Your task to perform on an android device: empty trash in the gmail app Image 0: 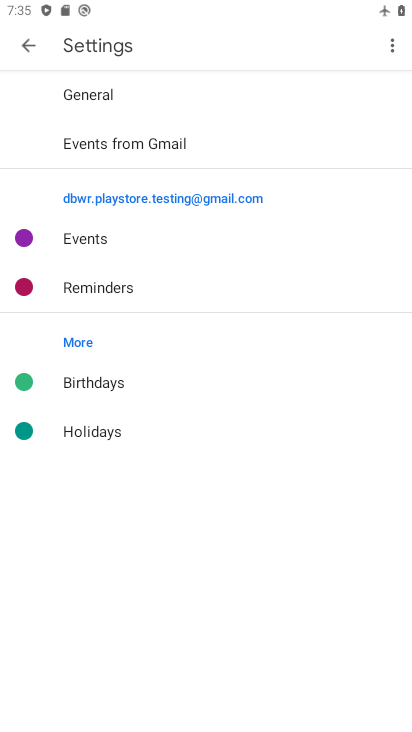
Step 0: press home button
Your task to perform on an android device: empty trash in the gmail app Image 1: 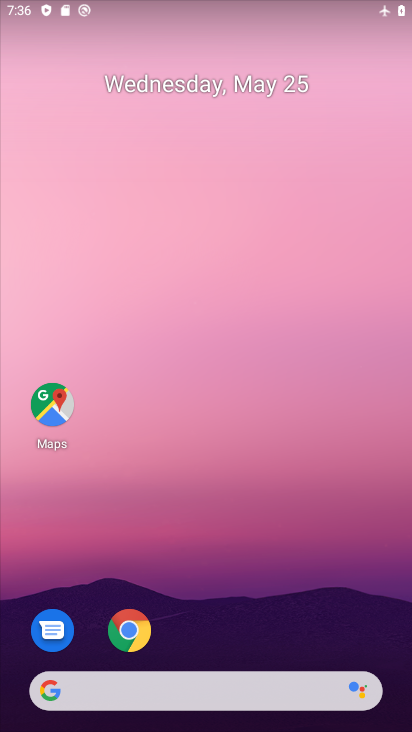
Step 1: drag from (200, 683) to (229, 314)
Your task to perform on an android device: empty trash in the gmail app Image 2: 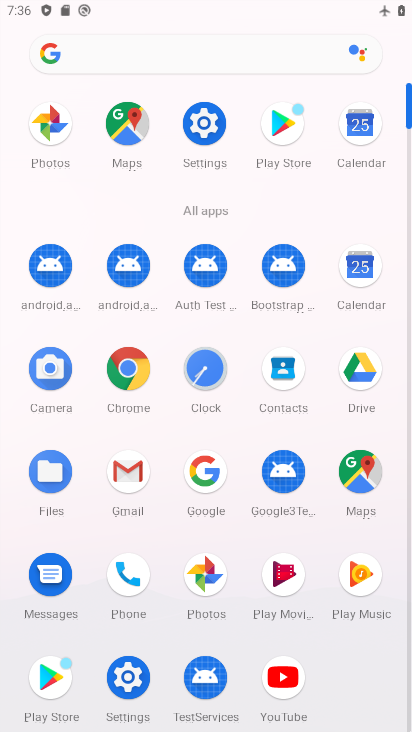
Step 2: click (205, 581)
Your task to perform on an android device: empty trash in the gmail app Image 3: 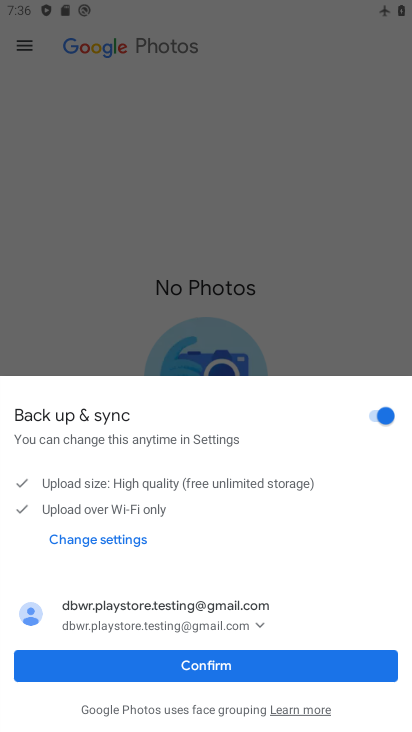
Step 3: click (176, 668)
Your task to perform on an android device: empty trash in the gmail app Image 4: 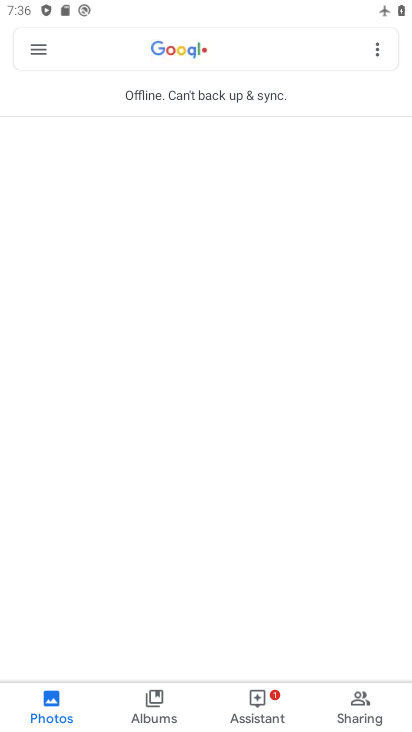
Step 4: click (35, 55)
Your task to perform on an android device: empty trash in the gmail app Image 5: 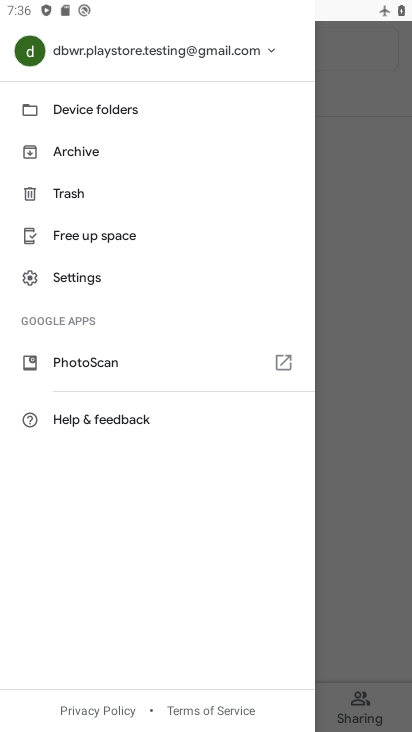
Step 5: click (64, 198)
Your task to perform on an android device: empty trash in the gmail app Image 6: 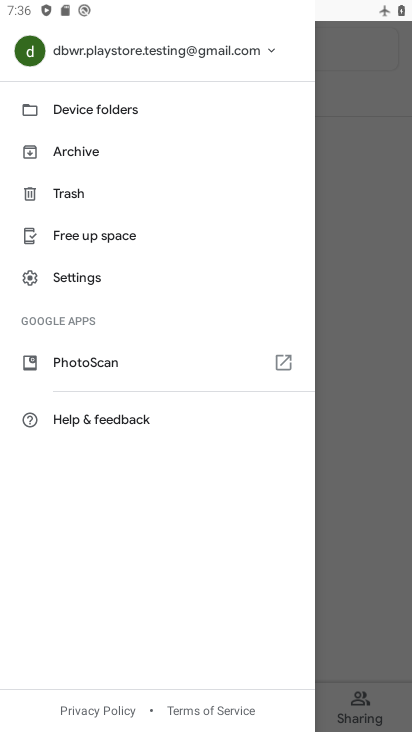
Step 6: click (82, 191)
Your task to perform on an android device: empty trash in the gmail app Image 7: 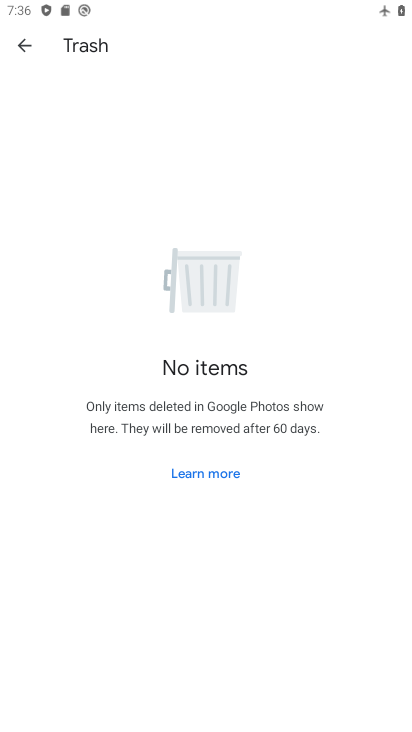
Step 7: task complete